Your task to perform on an android device: Is it going to rain this weekend? Image 0: 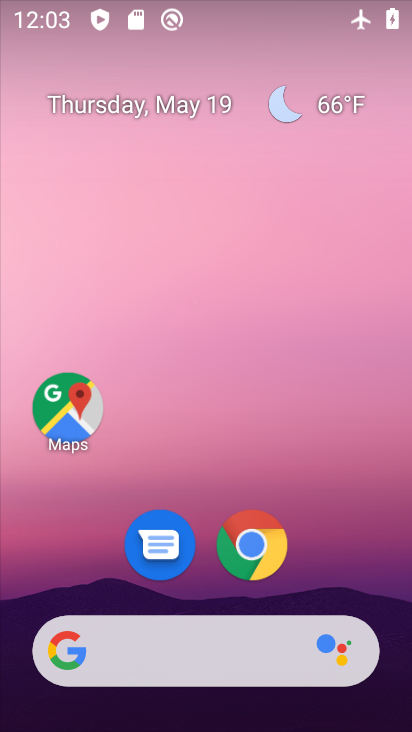
Step 0: click (39, 729)
Your task to perform on an android device: Is it going to rain this weekend? Image 1: 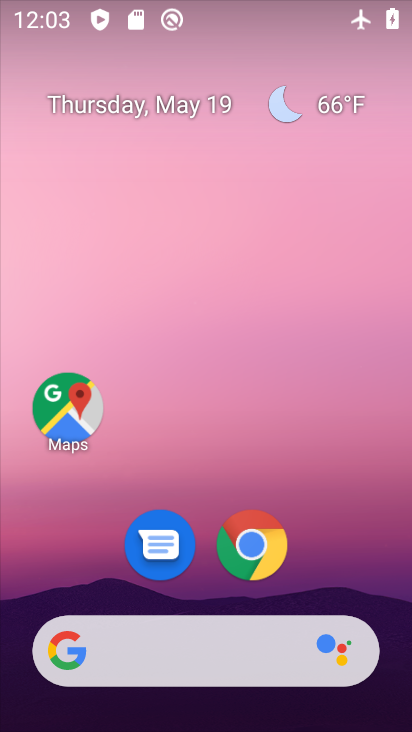
Step 1: click (190, 649)
Your task to perform on an android device: Is it going to rain this weekend? Image 2: 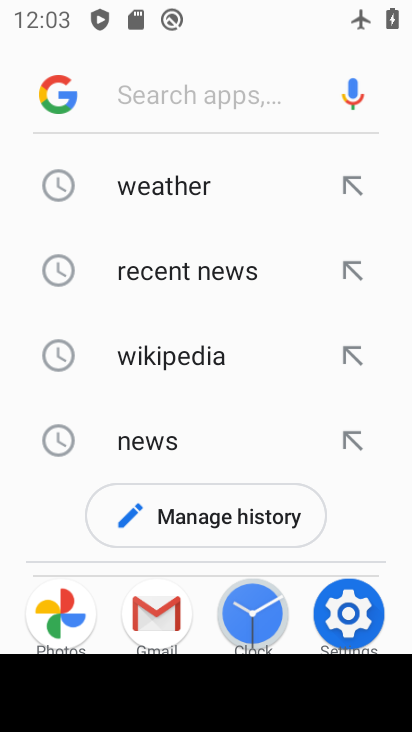
Step 2: type " Is it going to rain this weekend?"
Your task to perform on an android device: Is it going to rain this weekend? Image 3: 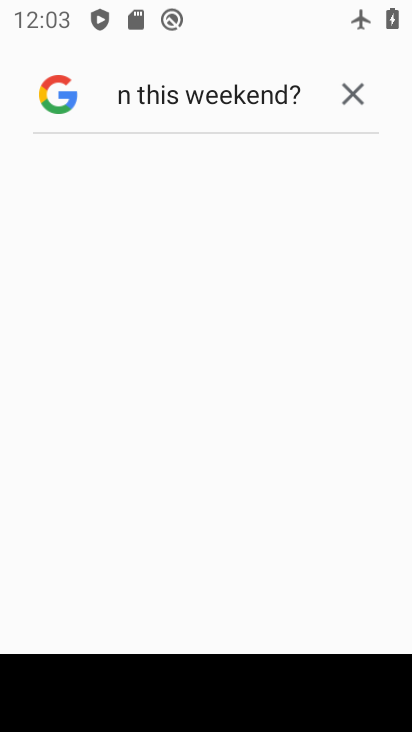
Step 3: task complete